Your task to perform on an android device: What is the recent news? Image 0: 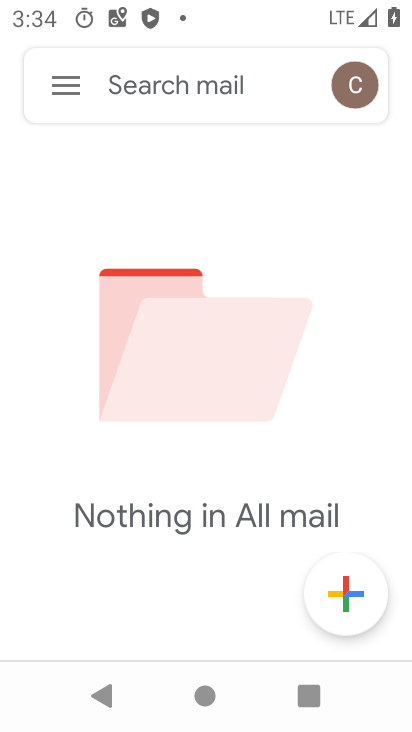
Step 0: press home button
Your task to perform on an android device: What is the recent news? Image 1: 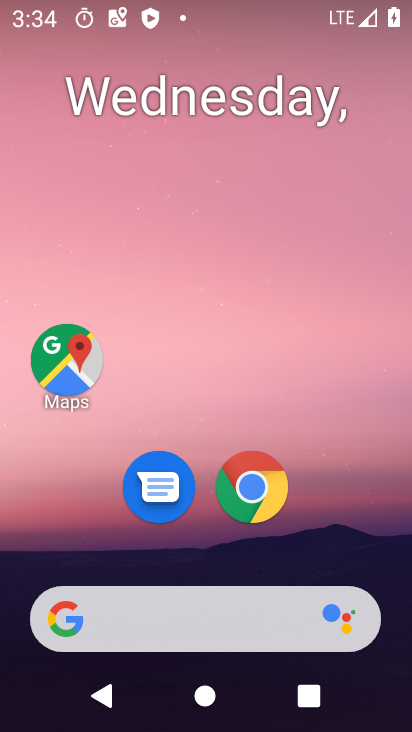
Step 1: drag from (240, 596) to (272, 265)
Your task to perform on an android device: What is the recent news? Image 2: 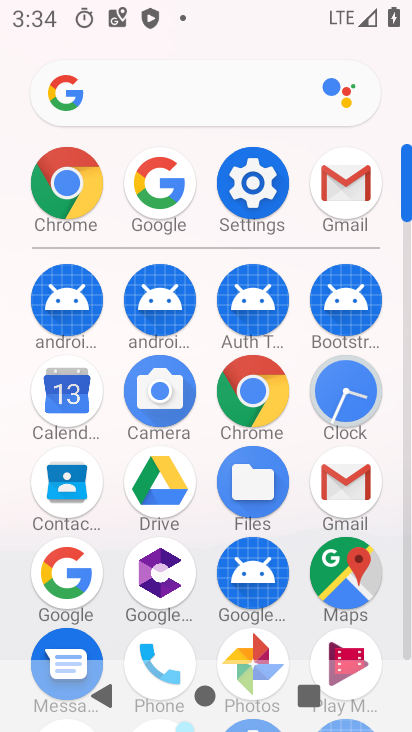
Step 2: click (72, 583)
Your task to perform on an android device: What is the recent news? Image 3: 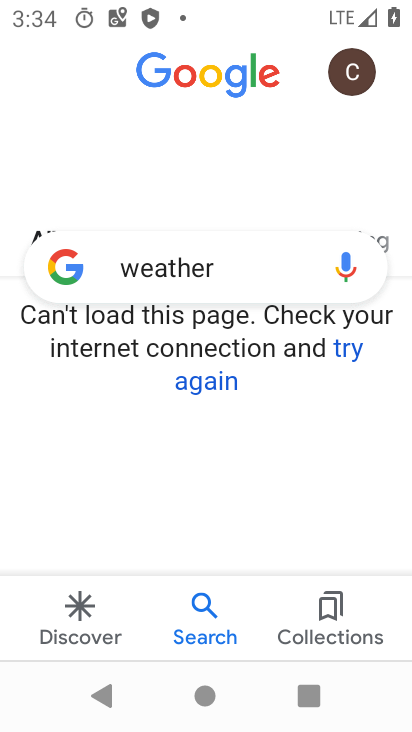
Step 3: click (270, 270)
Your task to perform on an android device: What is the recent news? Image 4: 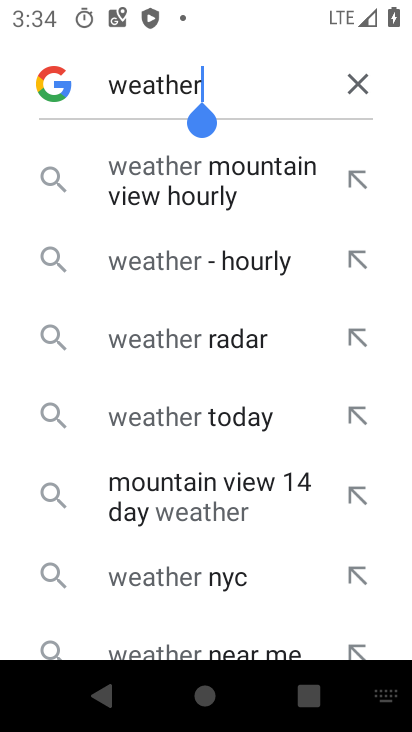
Step 4: click (352, 102)
Your task to perform on an android device: What is the recent news? Image 5: 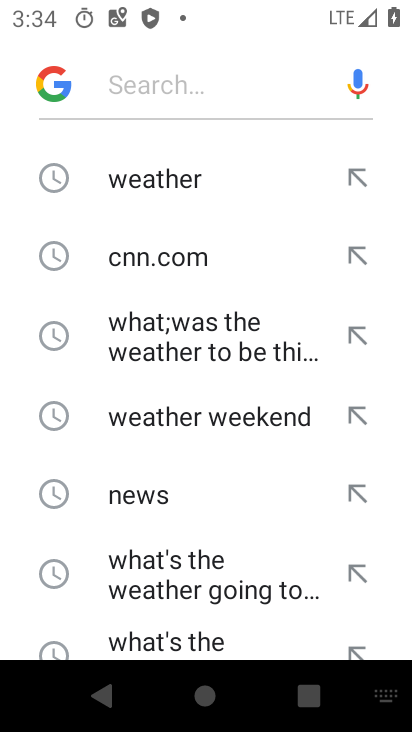
Step 5: click (203, 502)
Your task to perform on an android device: What is the recent news? Image 6: 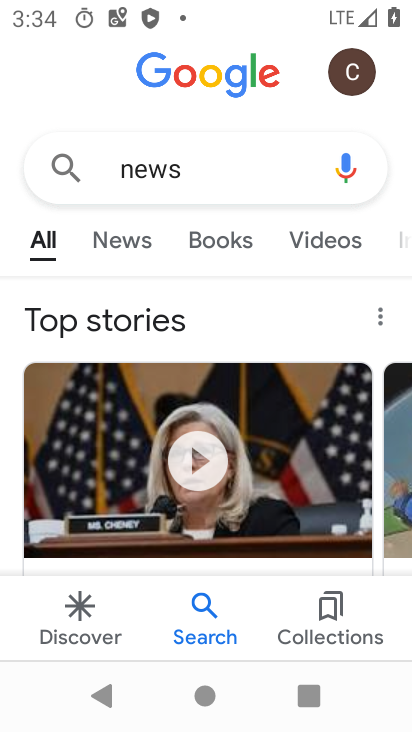
Step 6: click (131, 245)
Your task to perform on an android device: What is the recent news? Image 7: 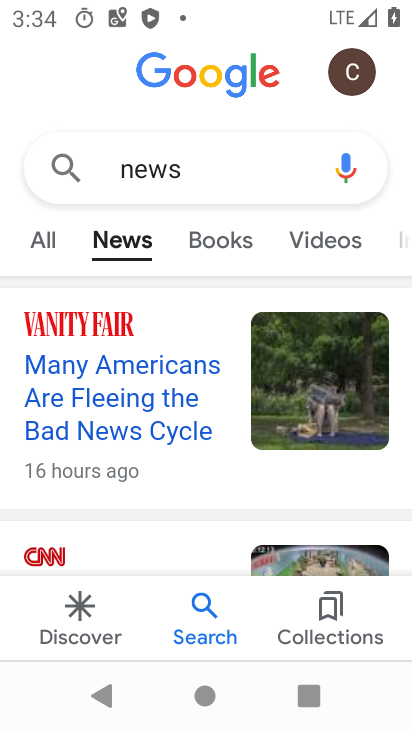
Step 7: task complete